Your task to perform on an android device: turn off airplane mode Image 0: 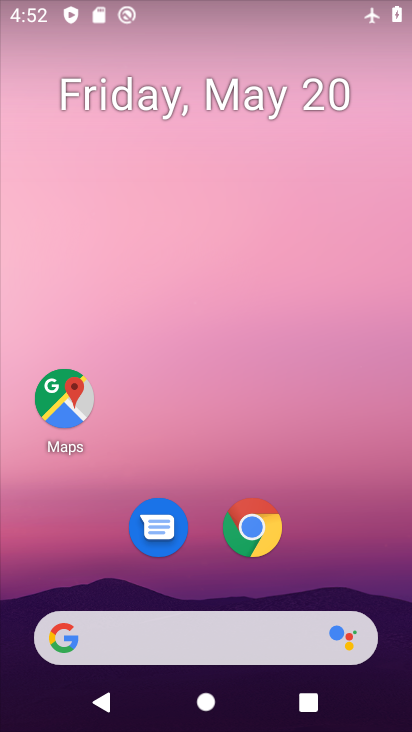
Step 0: drag from (312, 606) to (342, 102)
Your task to perform on an android device: turn off airplane mode Image 1: 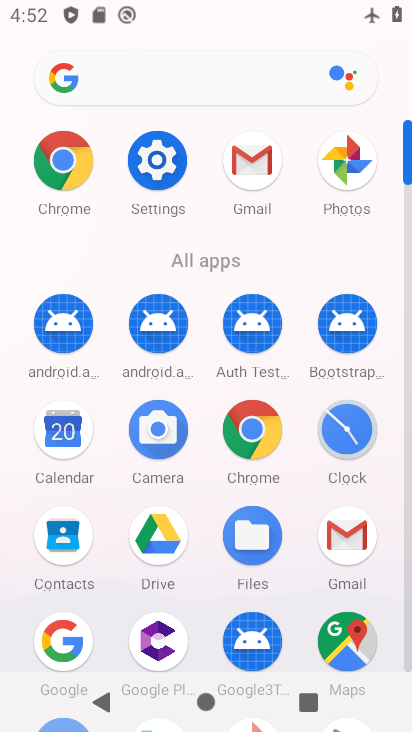
Step 1: click (148, 155)
Your task to perform on an android device: turn off airplane mode Image 2: 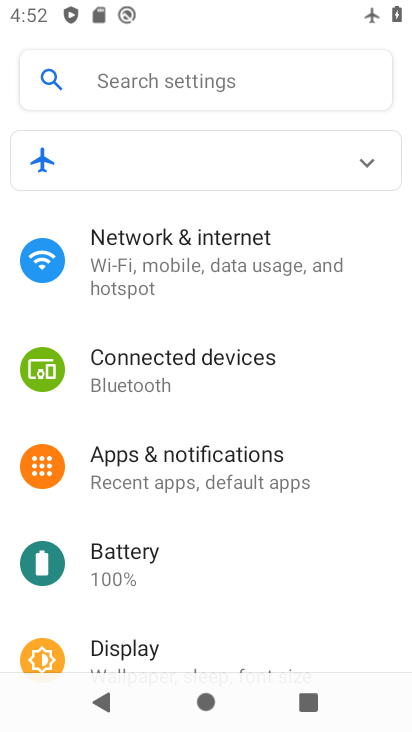
Step 2: click (198, 263)
Your task to perform on an android device: turn off airplane mode Image 3: 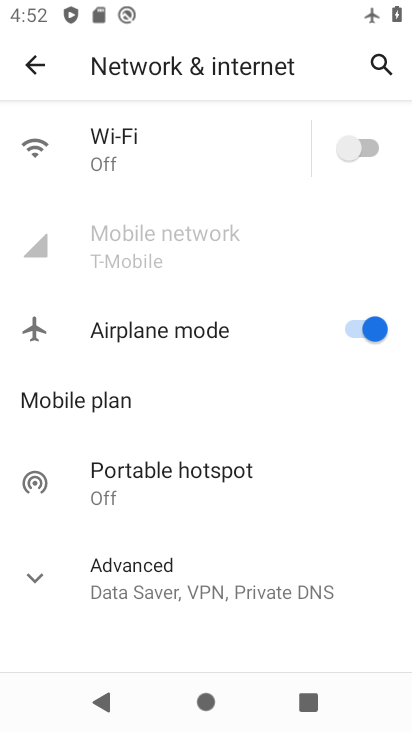
Step 3: click (355, 327)
Your task to perform on an android device: turn off airplane mode Image 4: 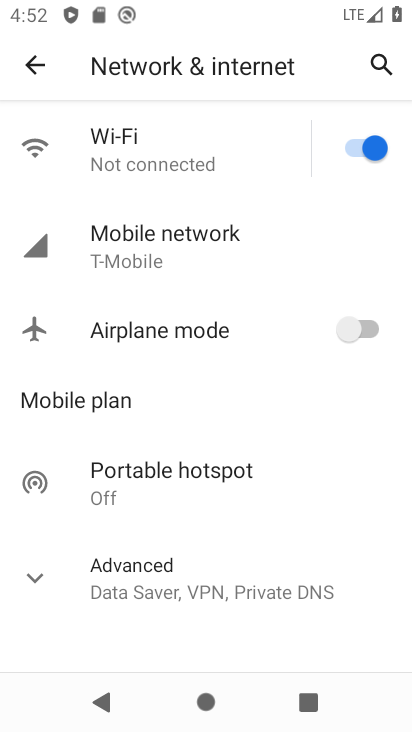
Step 4: task complete